Your task to perform on an android device: open app "Skype" Image 0: 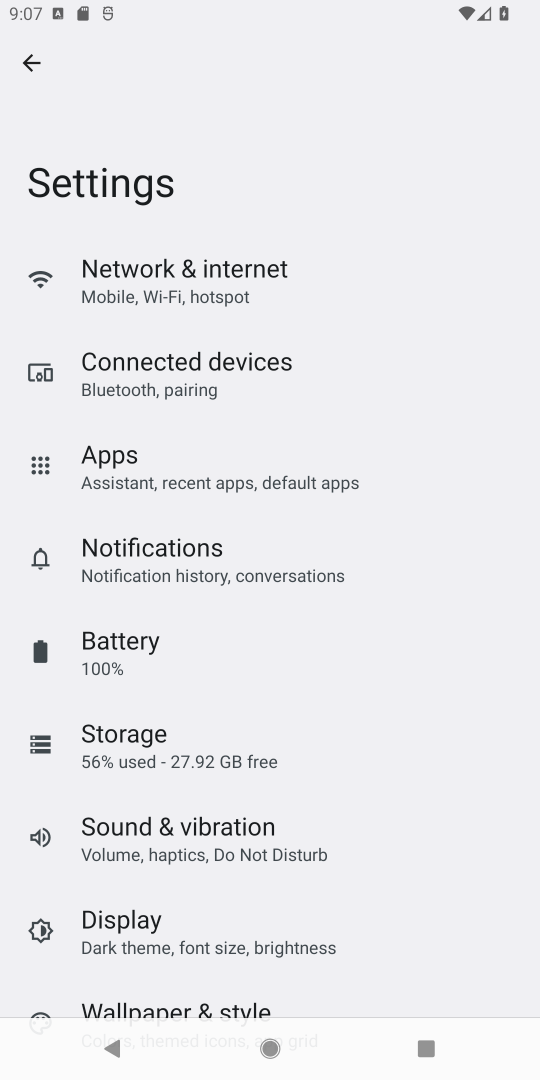
Step 0: press home button
Your task to perform on an android device: open app "Skype" Image 1: 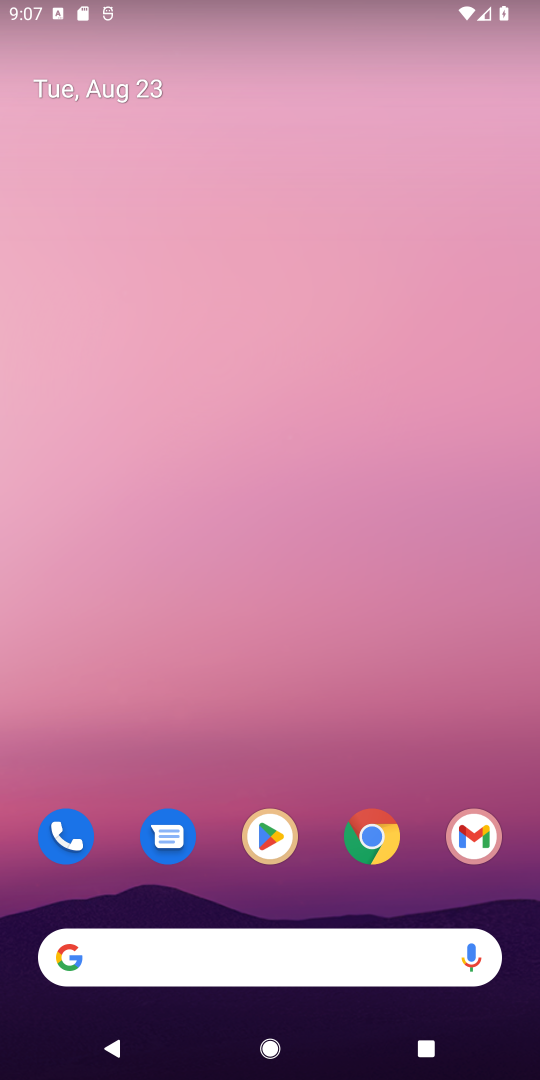
Step 1: click (276, 837)
Your task to perform on an android device: open app "Skype" Image 2: 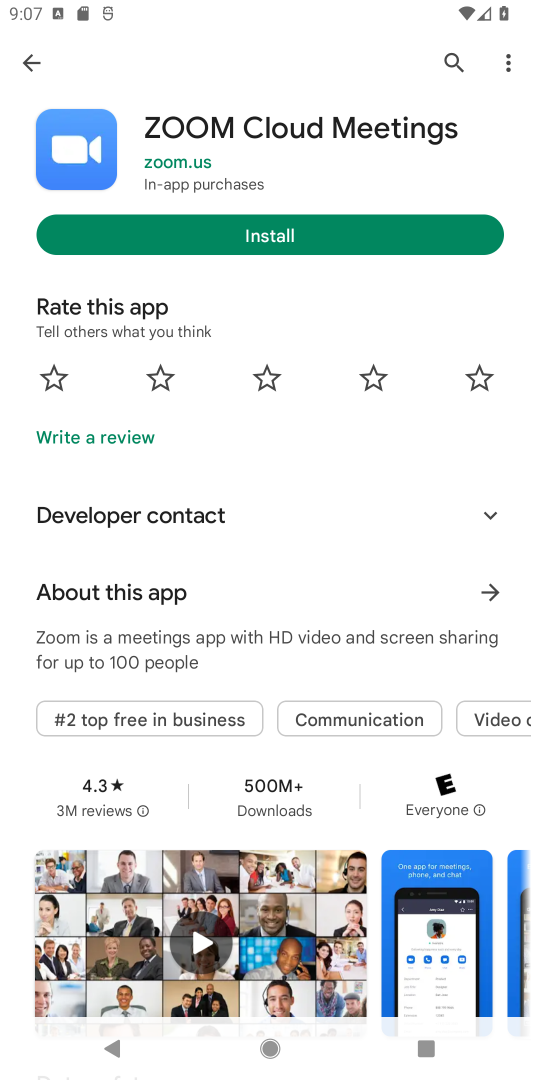
Step 2: click (446, 60)
Your task to perform on an android device: open app "Skype" Image 3: 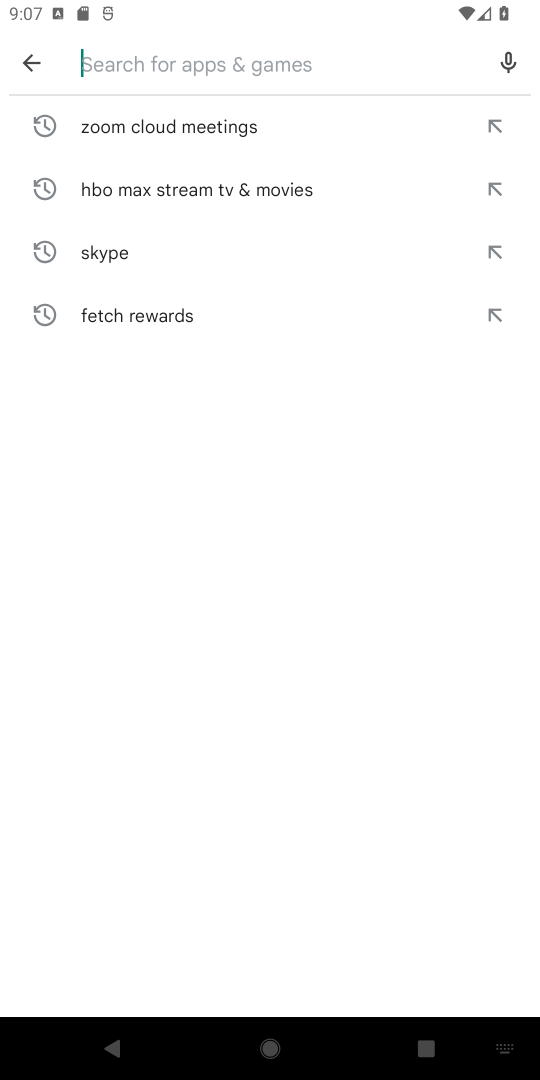
Step 3: click (122, 254)
Your task to perform on an android device: open app "Skype" Image 4: 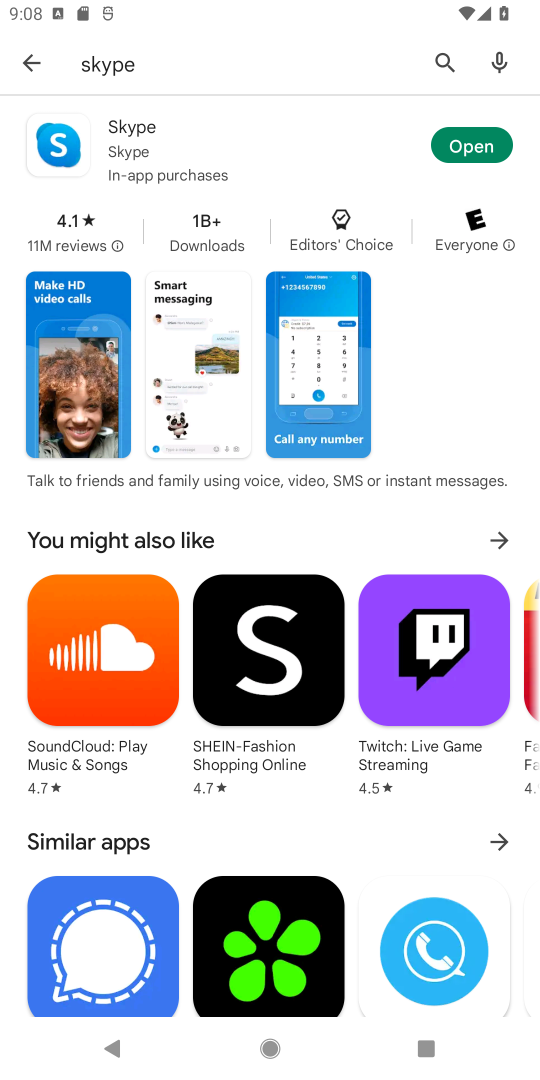
Step 4: click (475, 153)
Your task to perform on an android device: open app "Skype" Image 5: 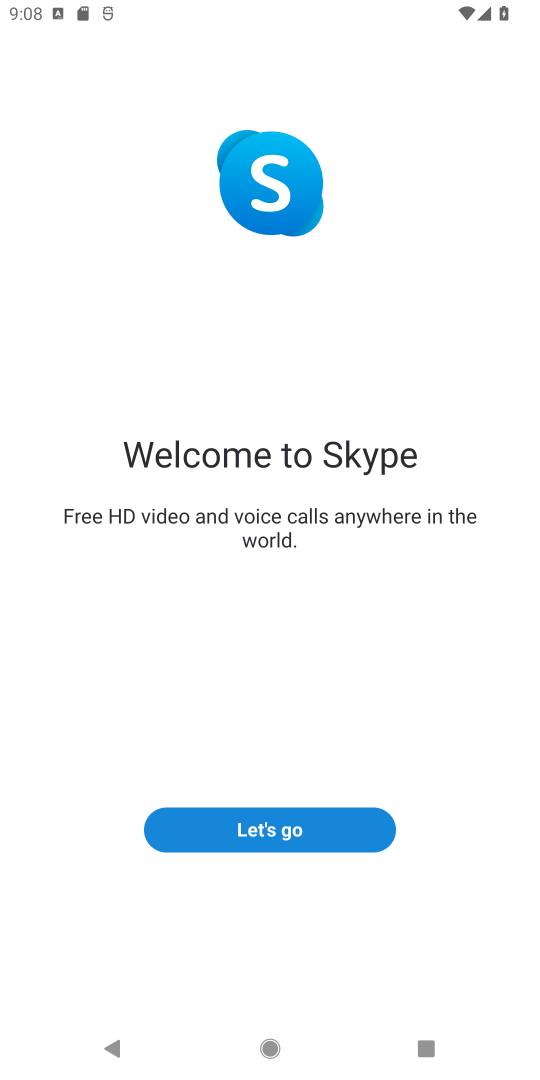
Step 5: task complete